Your task to perform on an android device: Find coffee shops on Maps Image 0: 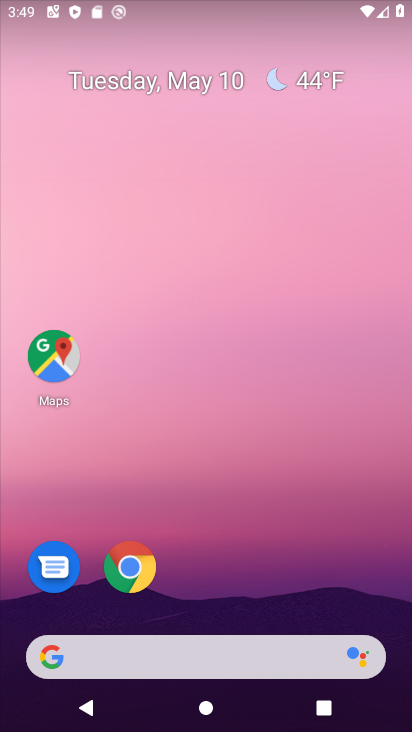
Step 0: click (53, 360)
Your task to perform on an android device: Find coffee shops on Maps Image 1: 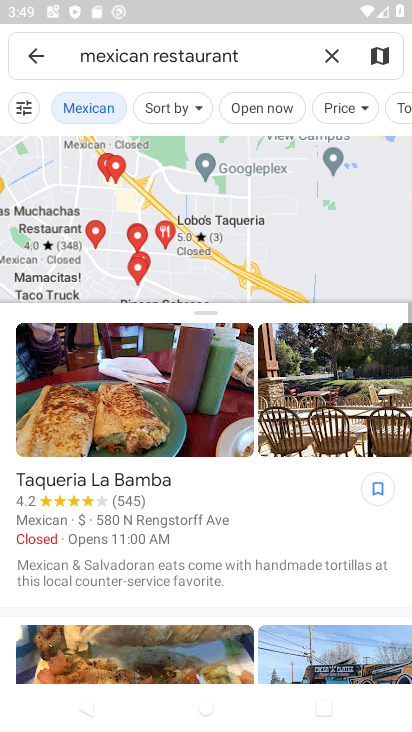
Step 1: click (335, 58)
Your task to perform on an android device: Find coffee shops on Maps Image 2: 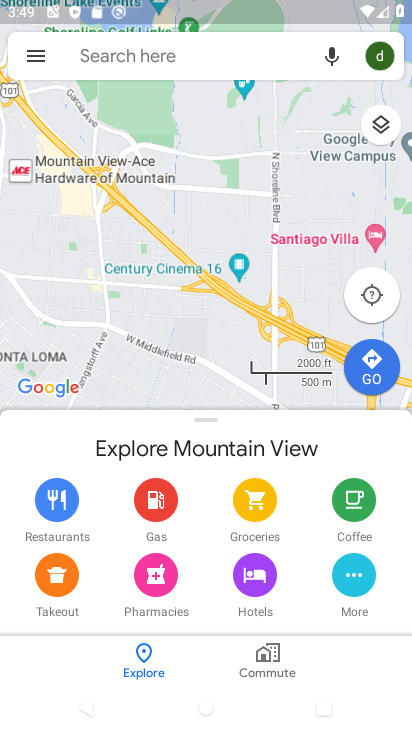
Step 2: click (247, 54)
Your task to perform on an android device: Find coffee shops on Maps Image 3: 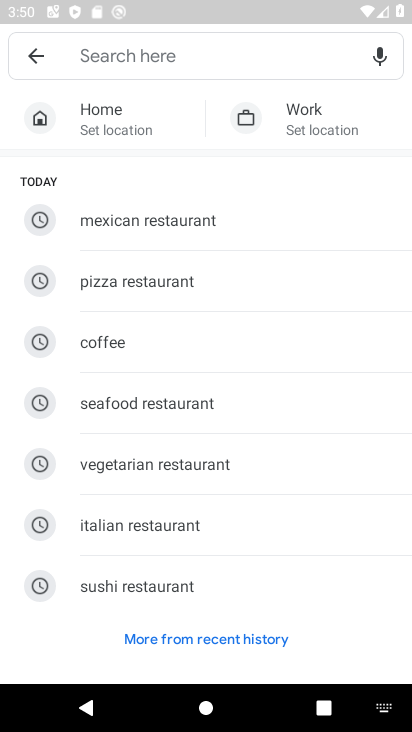
Step 3: type "coffee shops"
Your task to perform on an android device: Find coffee shops on Maps Image 4: 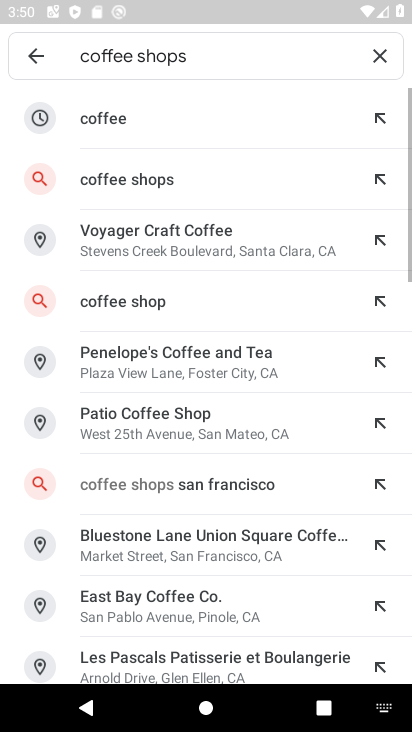
Step 4: click (141, 182)
Your task to perform on an android device: Find coffee shops on Maps Image 5: 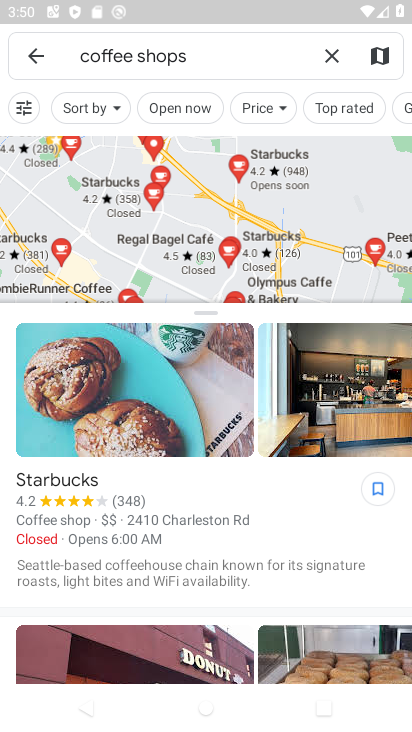
Step 5: task complete